Your task to perform on an android device: add a label to a message in the gmail app Image 0: 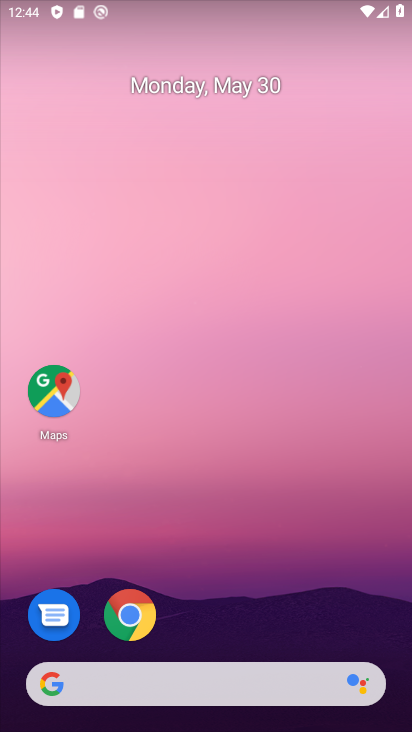
Step 0: drag from (127, 725) to (95, 52)
Your task to perform on an android device: add a label to a message in the gmail app Image 1: 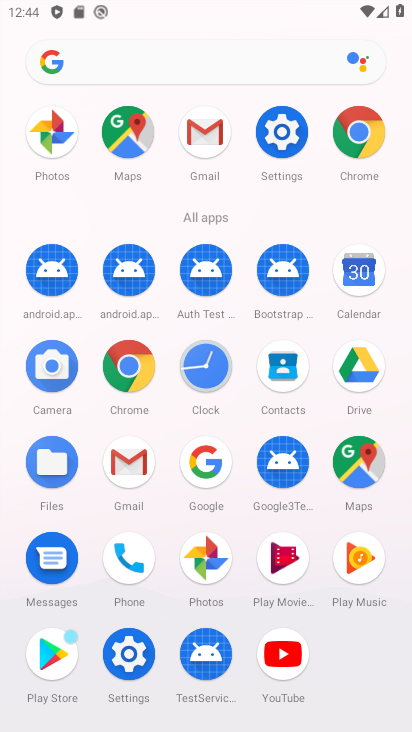
Step 1: click (134, 472)
Your task to perform on an android device: add a label to a message in the gmail app Image 2: 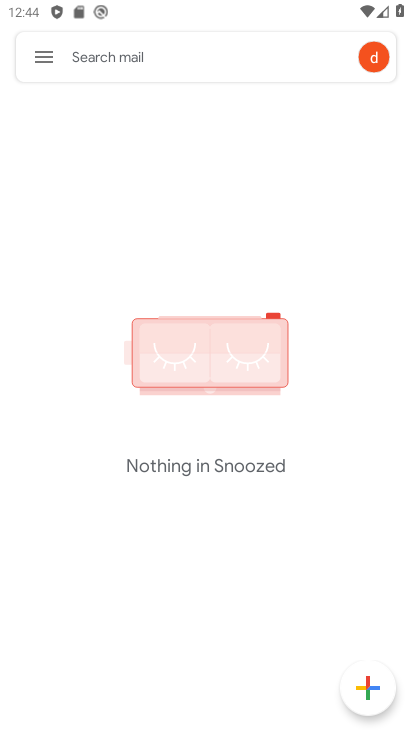
Step 2: click (52, 54)
Your task to perform on an android device: add a label to a message in the gmail app Image 3: 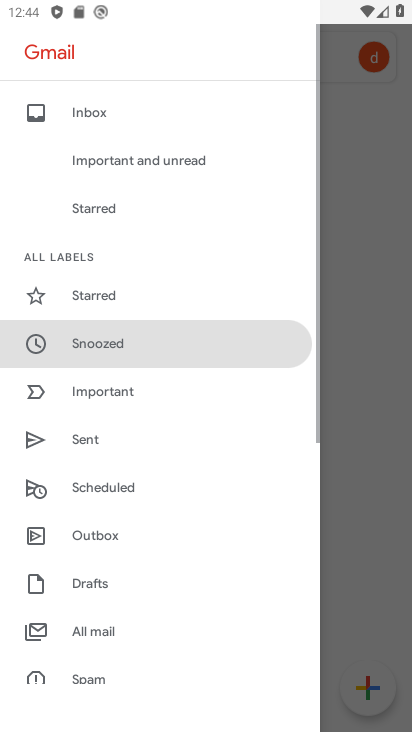
Step 3: click (62, 117)
Your task to perform on an android device: add a label to a message in the gmail app Image 4: 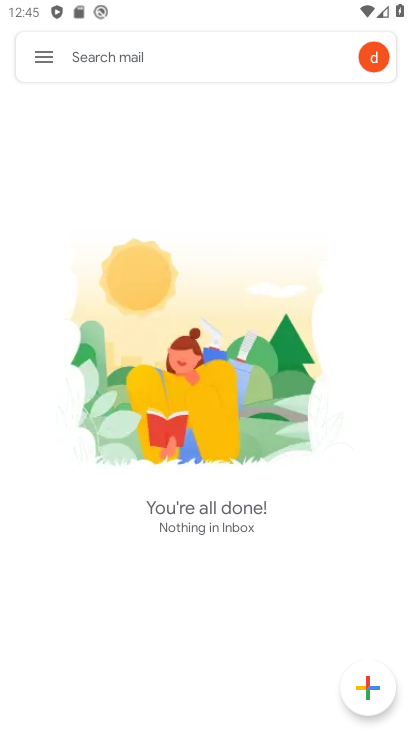
Step 4: click (42, 57)
Your task to perform on an android device: add a label to a message in the gmail app Image 5: 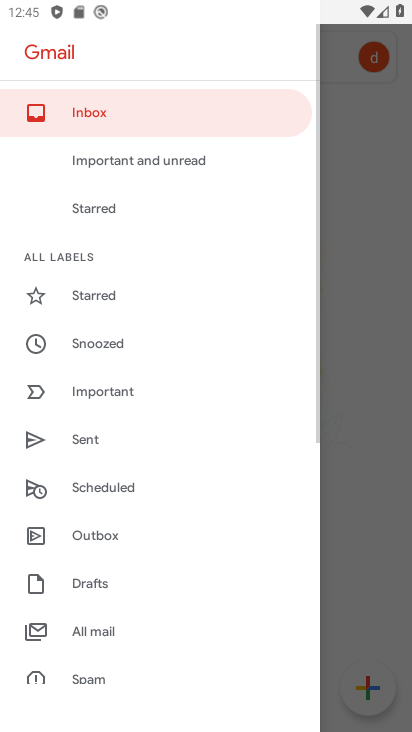
Step 5: click (96, 632)
Your task to perform on an android device: add a label to a message in the gmail app Image 6: 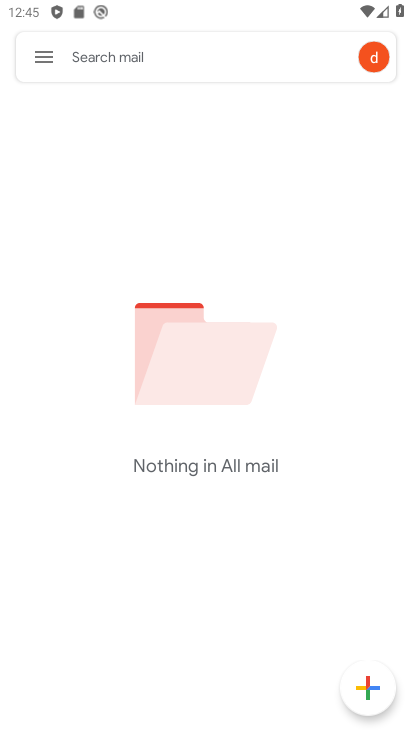
Step 6: task complete